Your task to perform on an android device: Go to sound settings Image 0: 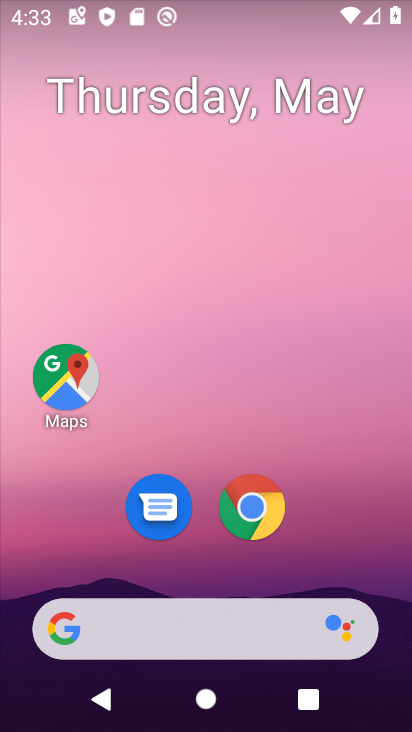
Step 0: drag from (163, 520) to (212, 189)
Your task to perform on an android device: Go to sound settings Image 1: 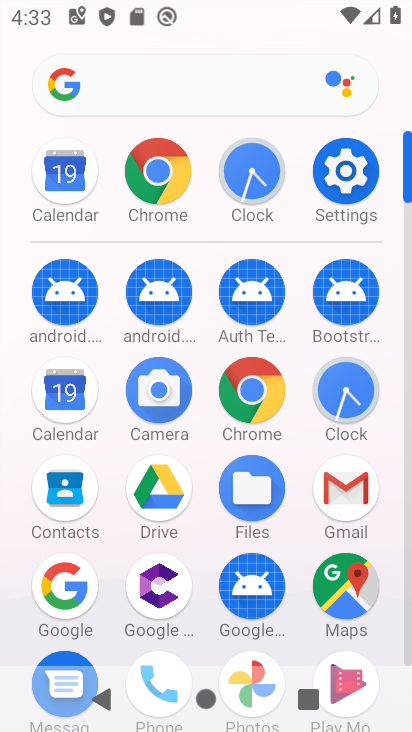
Step 1: click (343, 161)
Your task to perform on an android device: Go to sound settings Image 2: 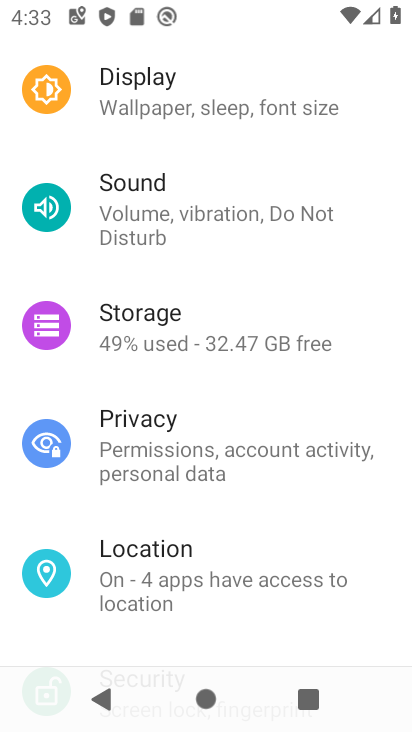
Step 2: click (190, 188)
Your task to perform on an android device: Go to sound settings Image 3: 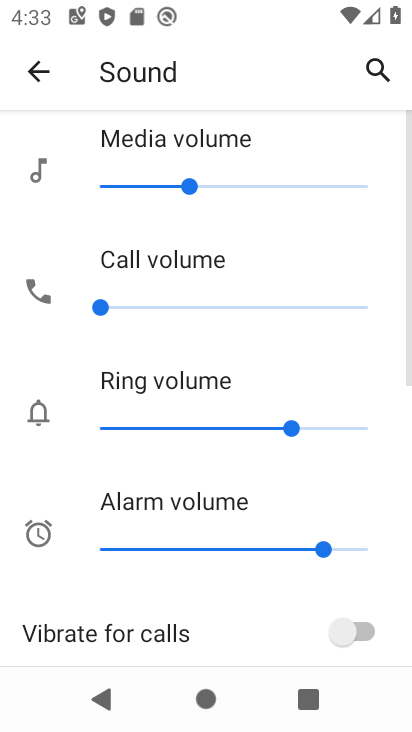
Step 3: task complete